Your task to perform on an android device: uninstall "Firefox Browser" Image 0: 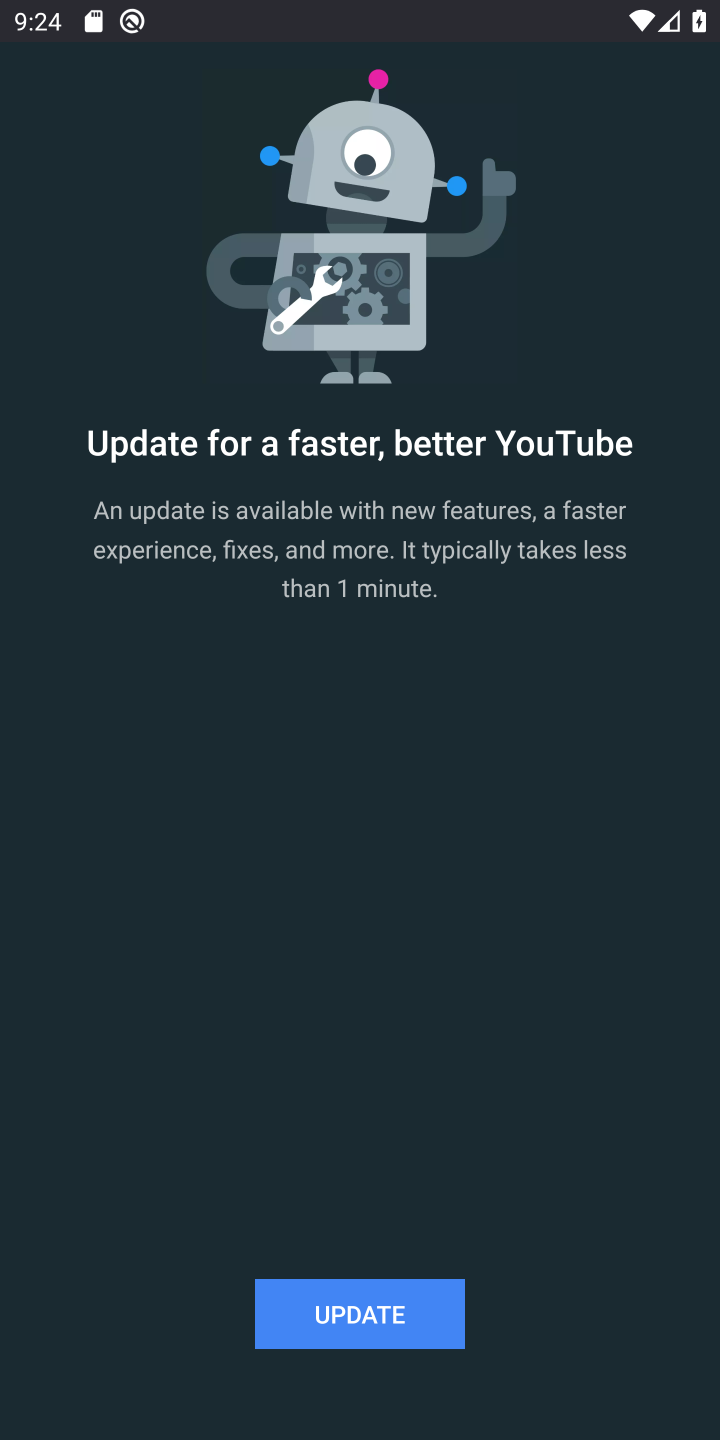
Step 0: press home button
Your task to perform on an android device: uninstall "Firefox Browser" Image 1: 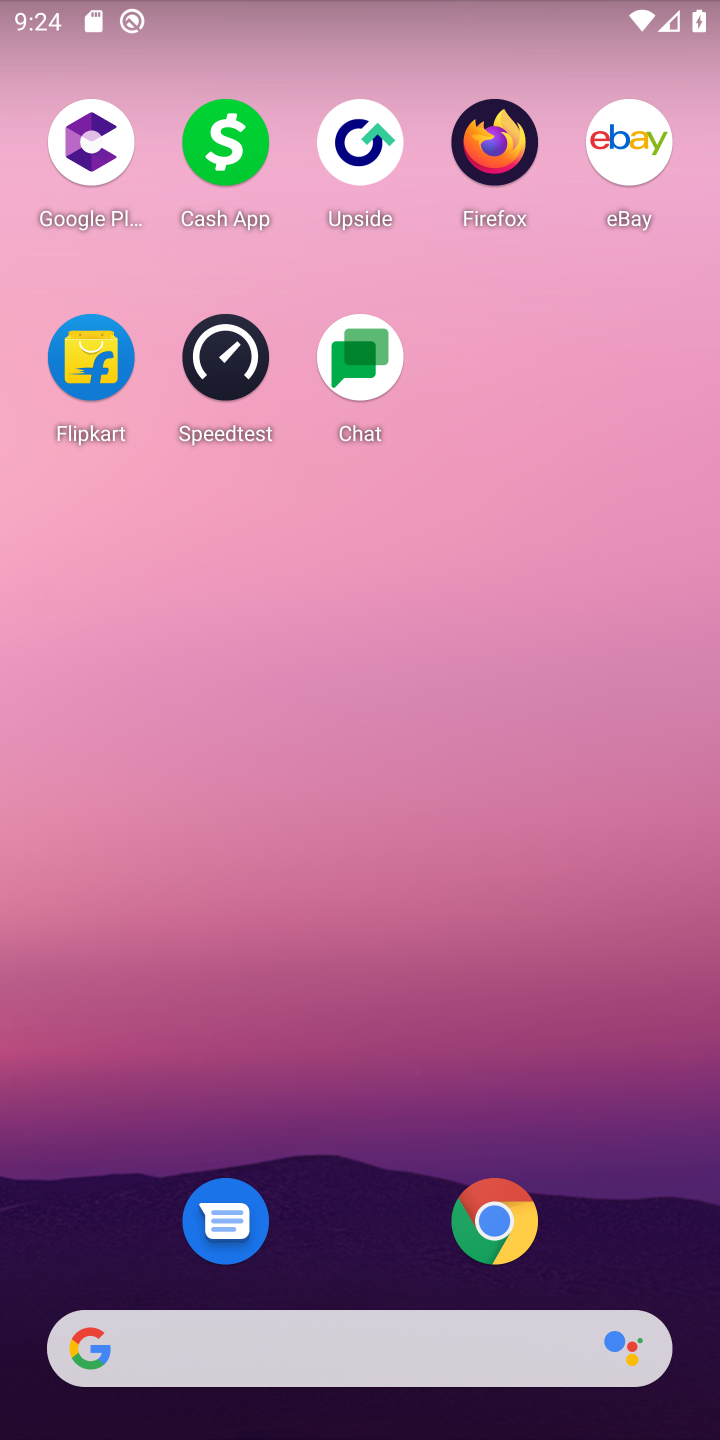
Step 1: drag from (347, 1140) to (303, 360)
Your task to perform on an android device: uninstall "Firefox Browser" Image 2: 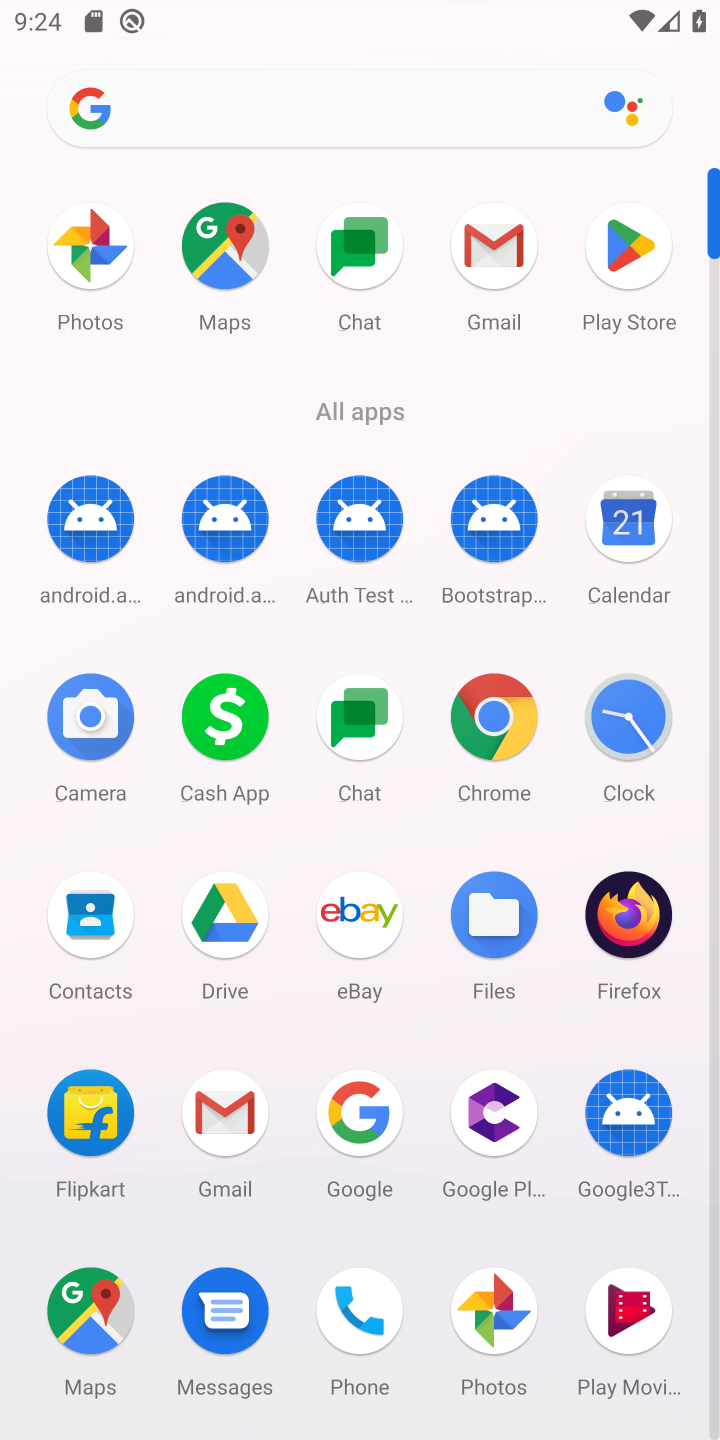
Step 2: click (618, 245)
Your task to perform on an android device: uninstall "Firefox Browser" Image 3: 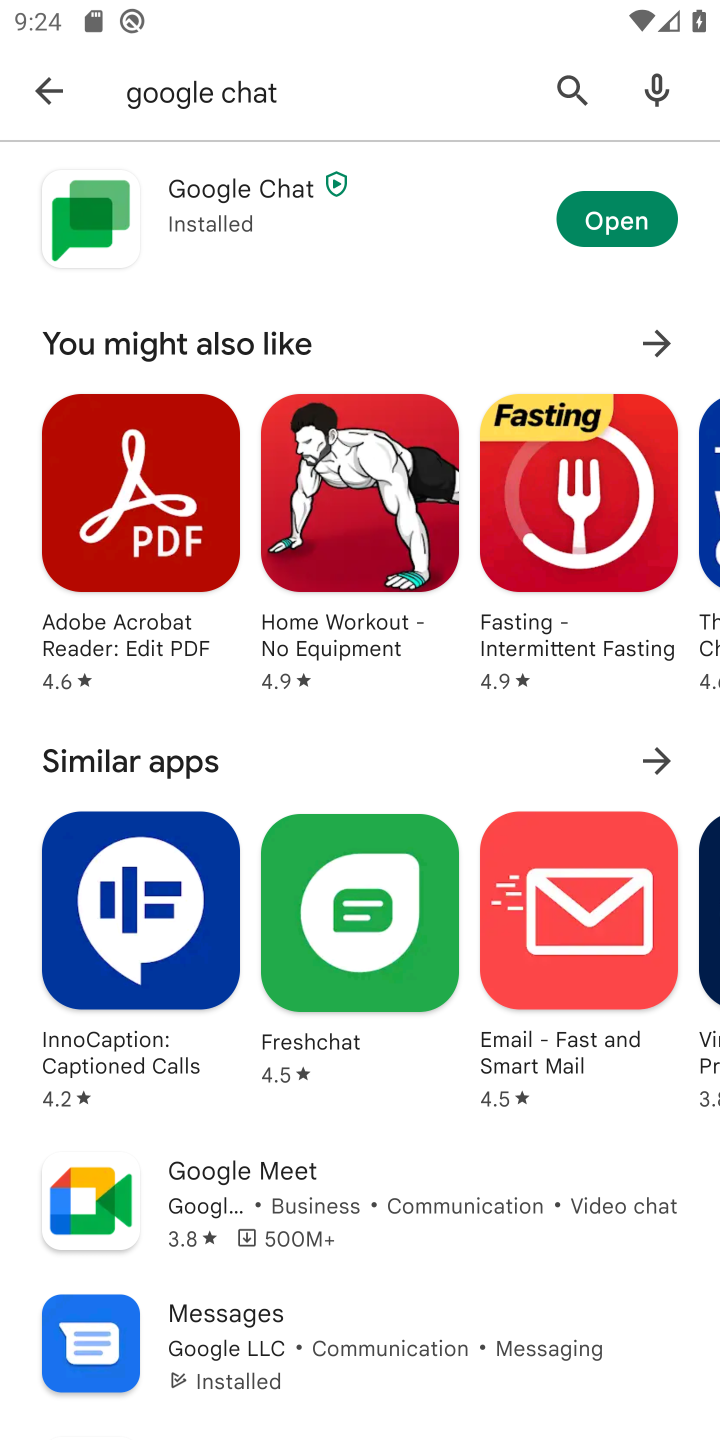
Step 3: click (565, 92)
Your task to perform on an android device: uninstall "Firefox Browser" Image 4: 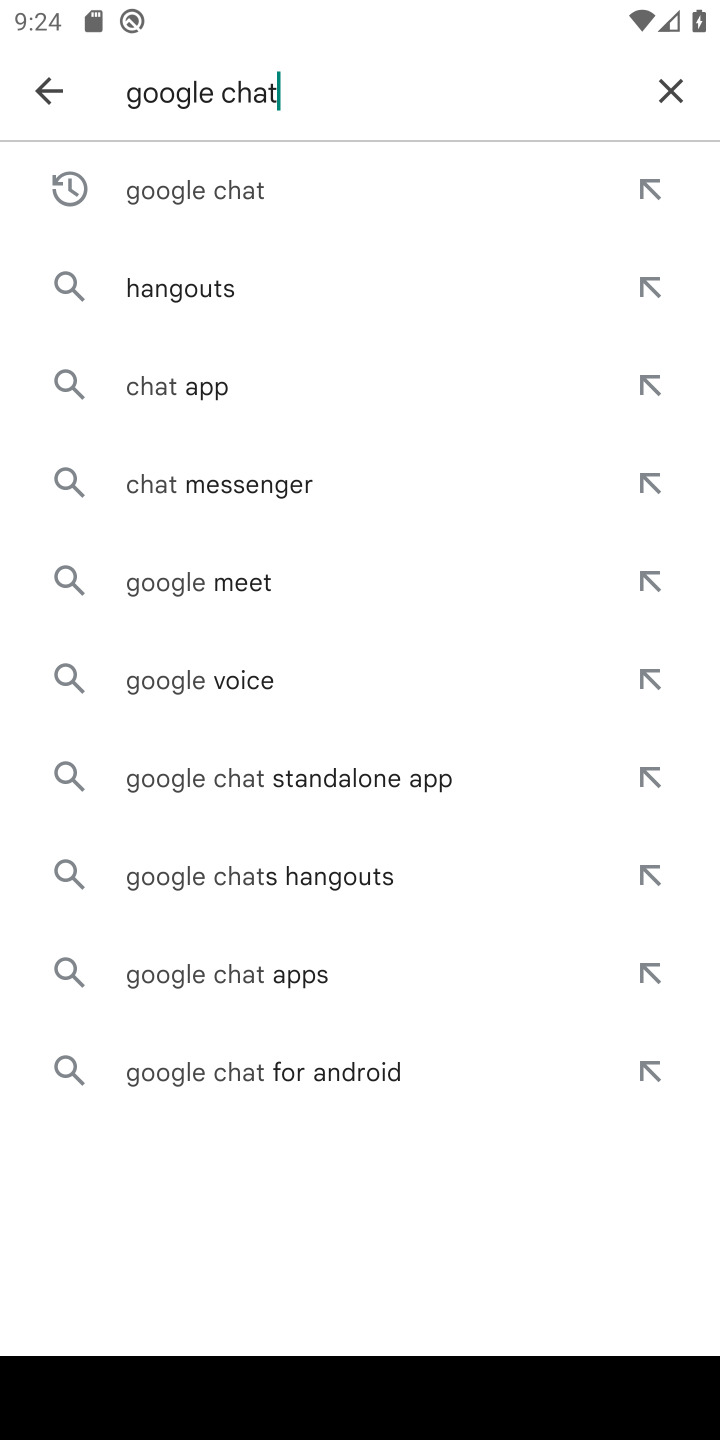
Step 4: click (663, 77)
Your task to perform on an android device: uninstall "Firefox Browser" Image 5: 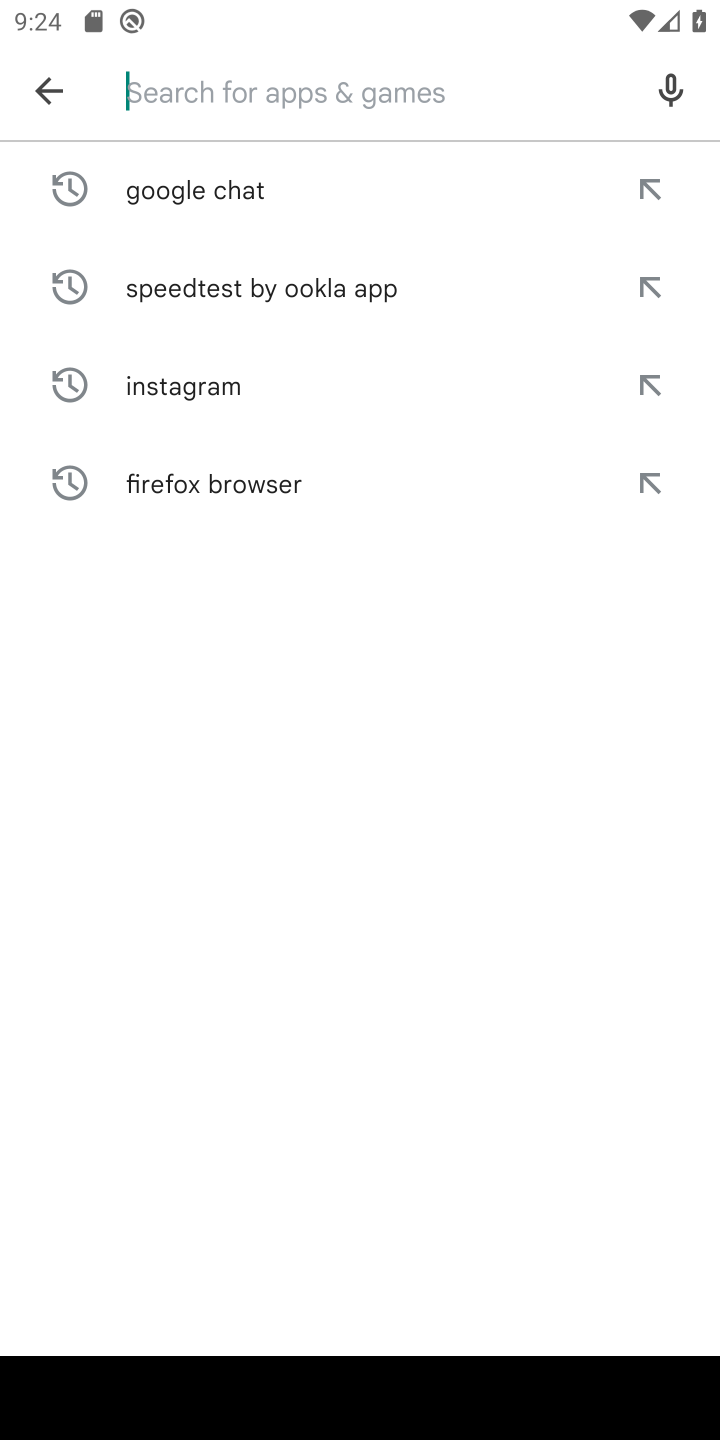
Step 5: type "Firefox Browser"
Your task to perform on an android device: uninstall "Firefox Browser" Image 6: 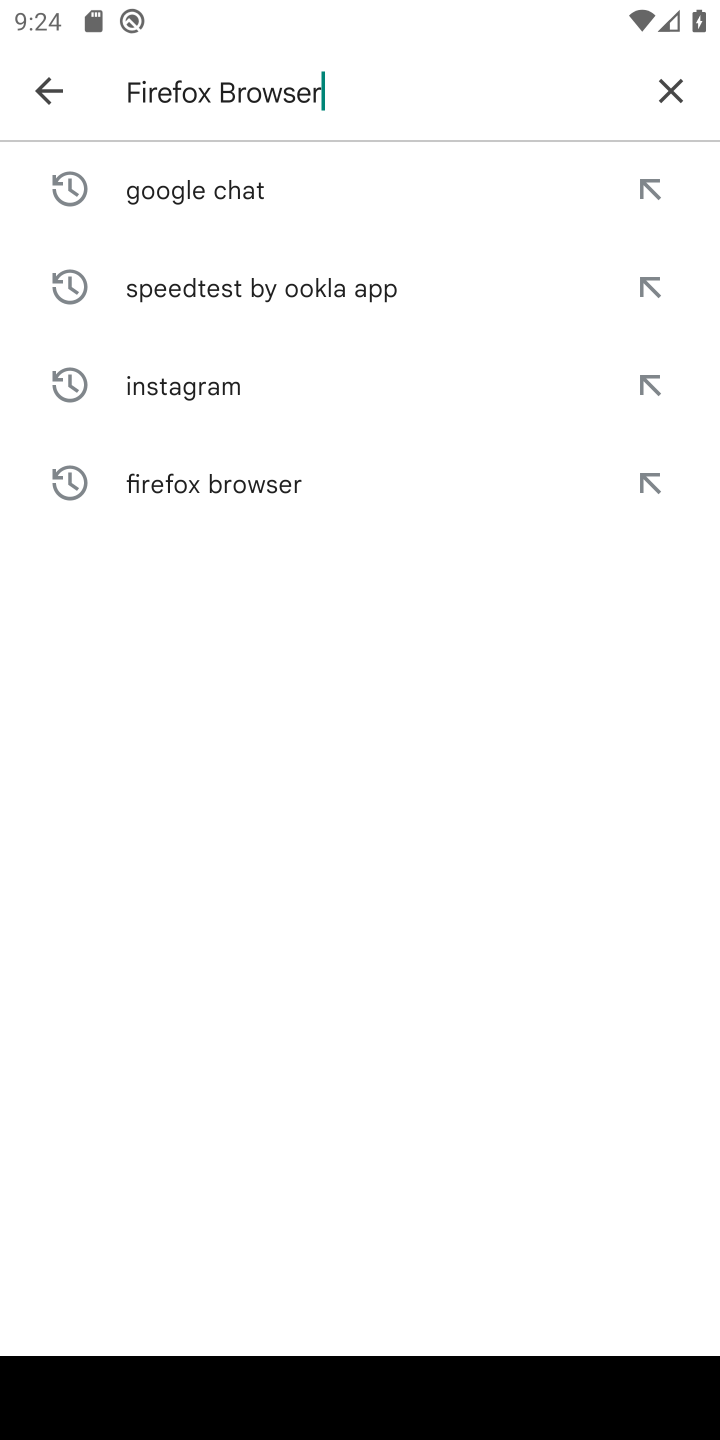
Step 6: type ""
Your task to perform on an android device: uninstall "Firefox Browser" Image 7: 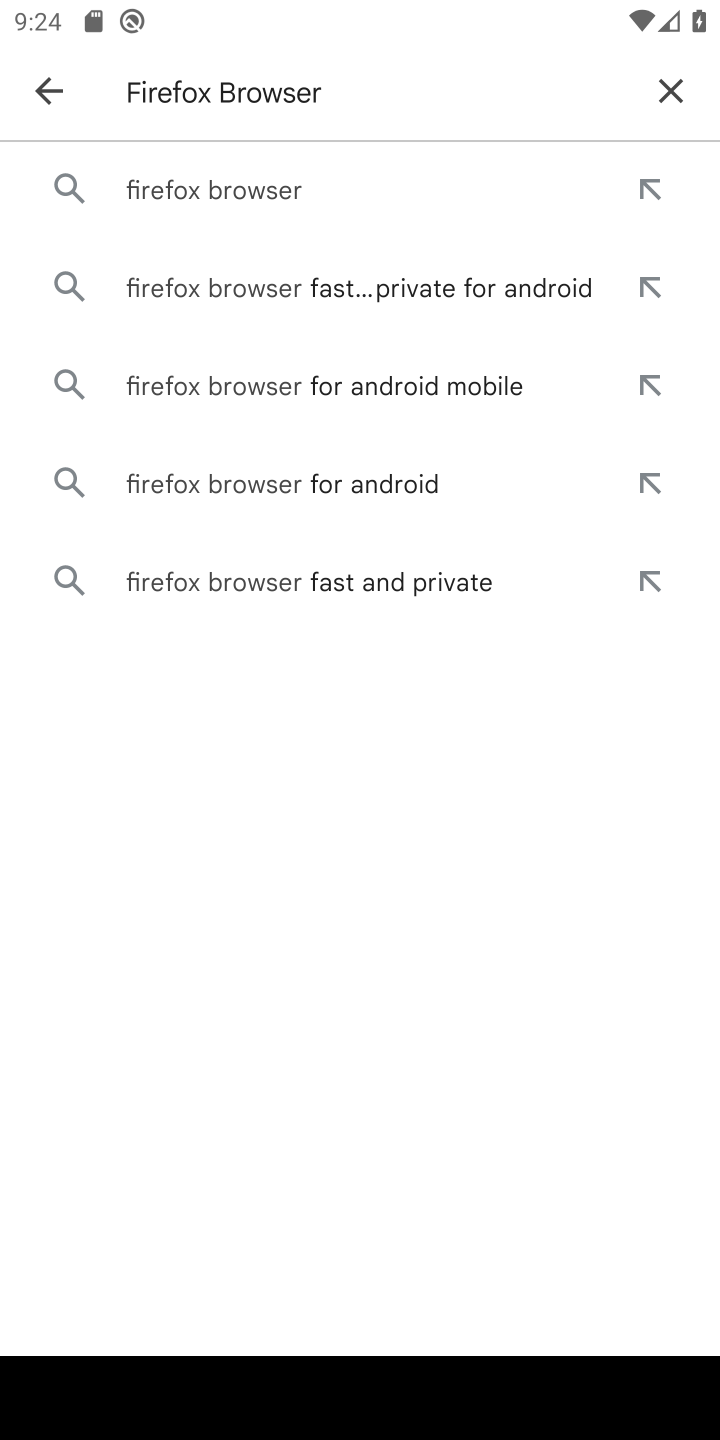
Step 7: click (242, 185)
Your task to perform on an android device: uninstall "Firefox Browser" Image 8: 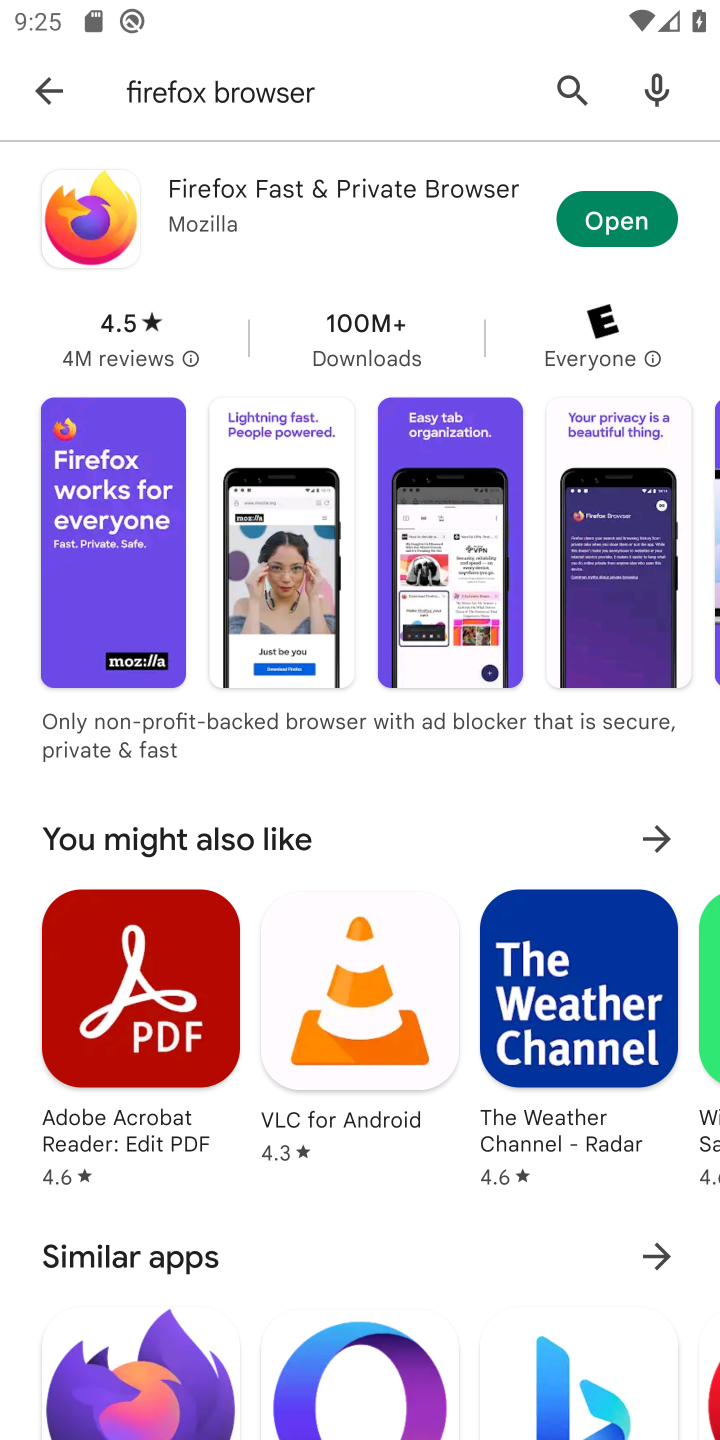
Step 8: click (347, 215)
Your task to perform on an android device: uninstall "Firefox Browser" Image 9: 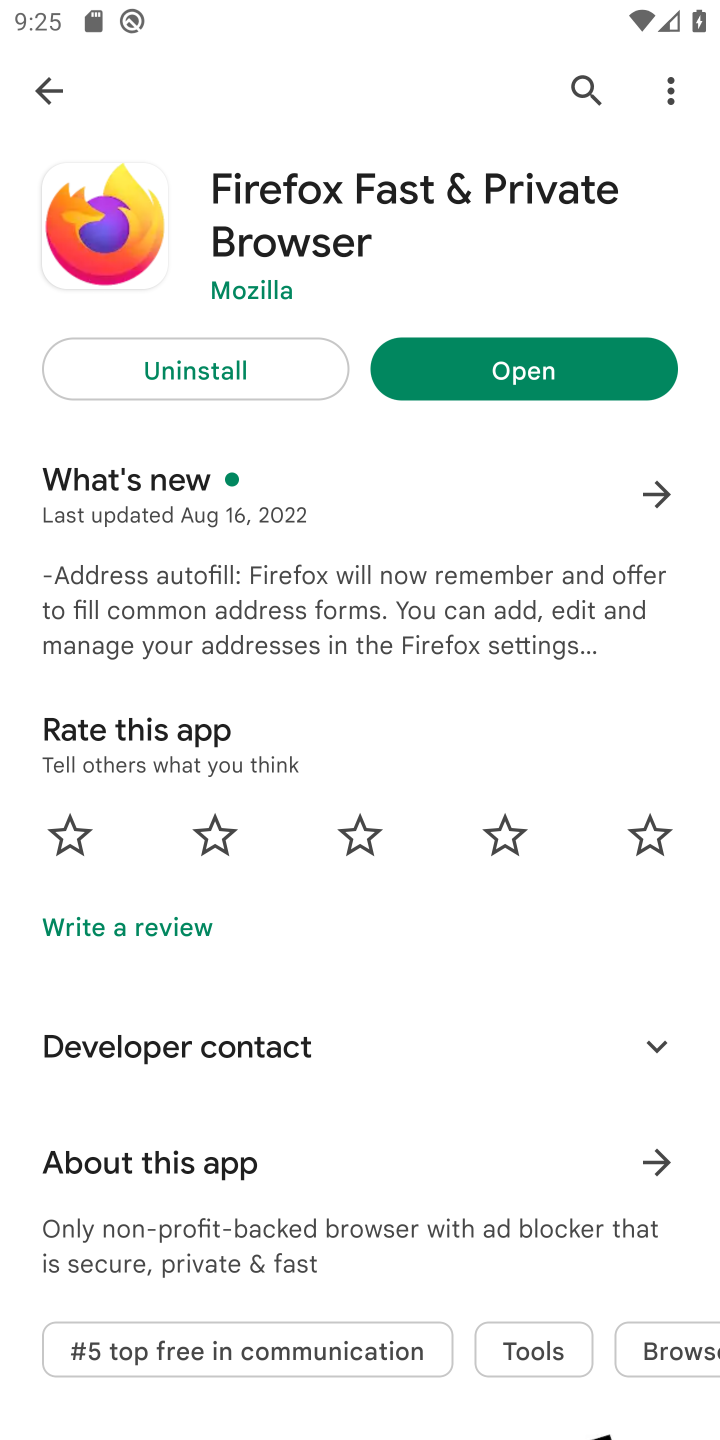
Step 9: click (145, 362)
Your task to perform on an android device: uninstall "Firefox Browser" Image 10: 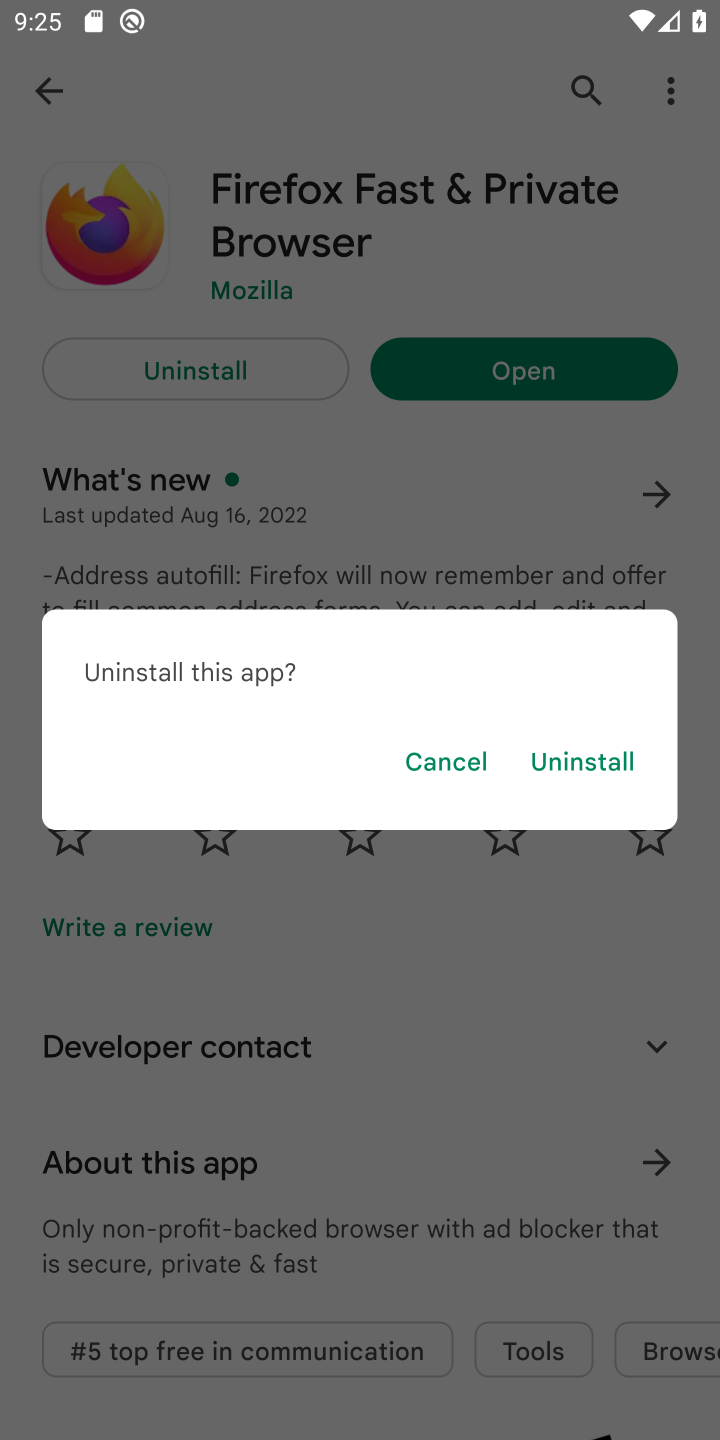
Step 10: click (603, 764)
Your task to perform on an android device: uninstall "Firefox Browser" Image 11: 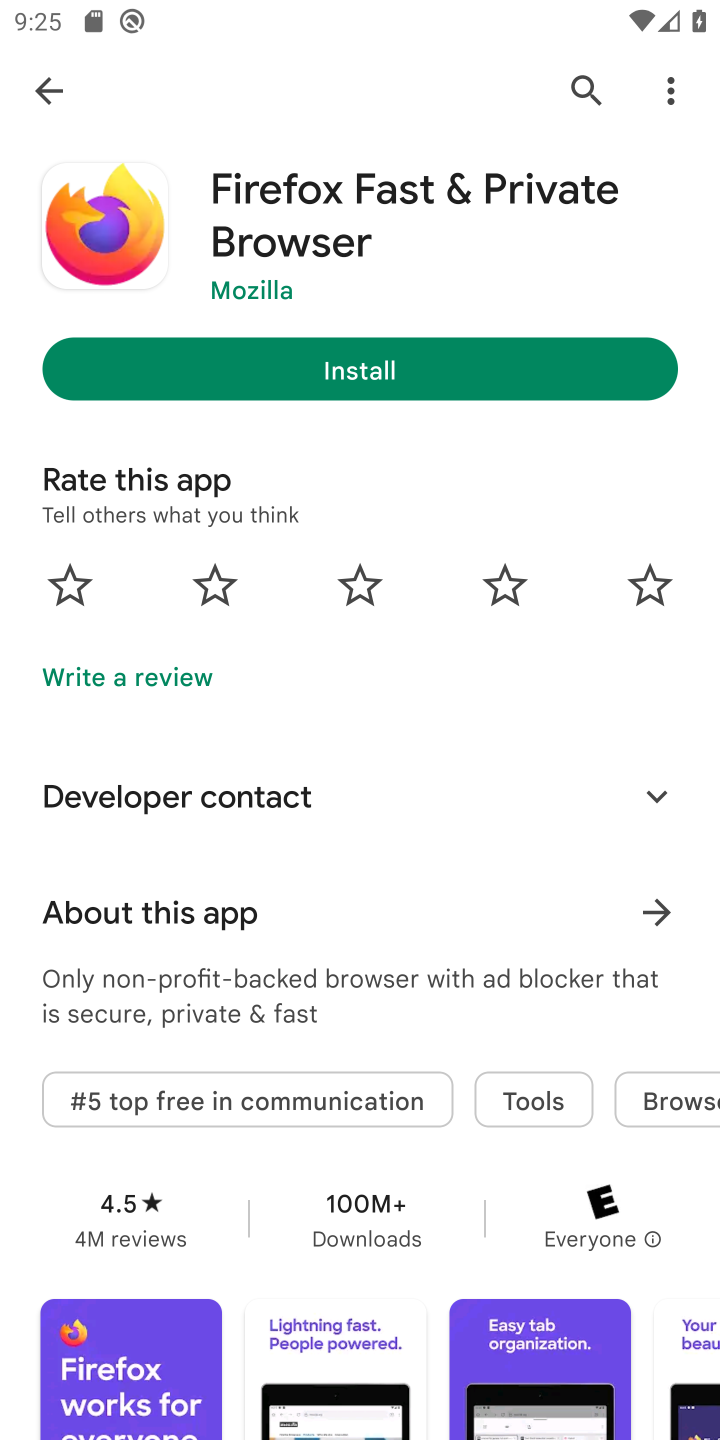
Step 11: task complete